Your task to perform on an android device: uninstall "Viber Messenger" Image 0: 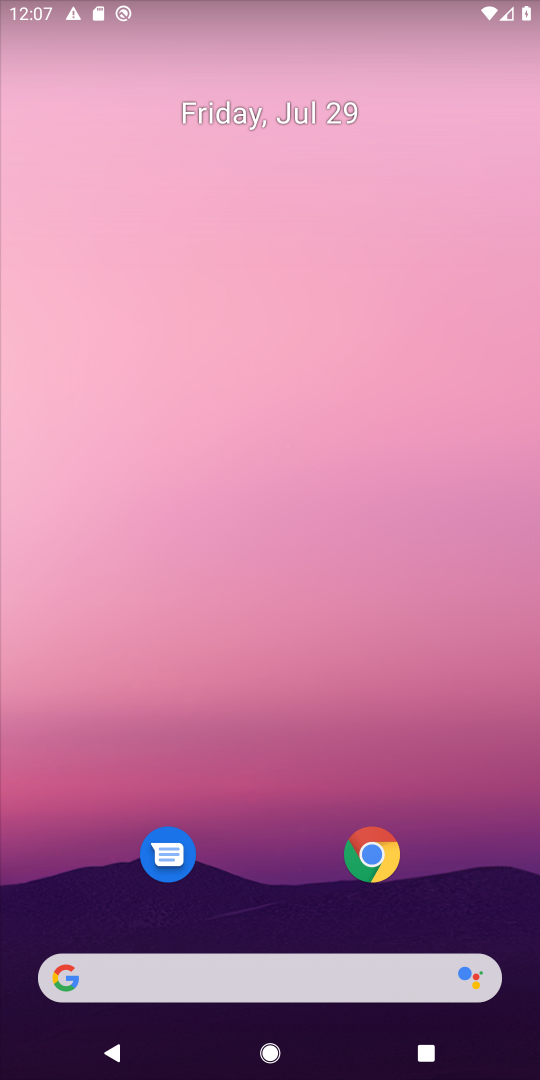
Step 0: drag from (299, 841) to (227, 86)
Your task to perform on an android device: uninstall "Viber Messenger" Image 1: 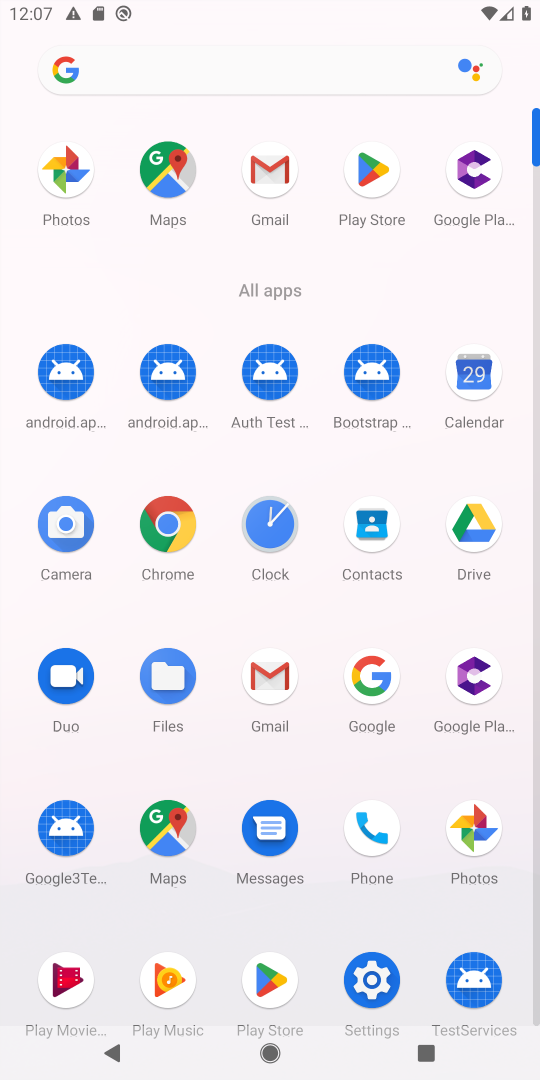
Step 1: click (368, 158)
Your task to perform on an android device: uninstall "Viber Messenger" Image 2: 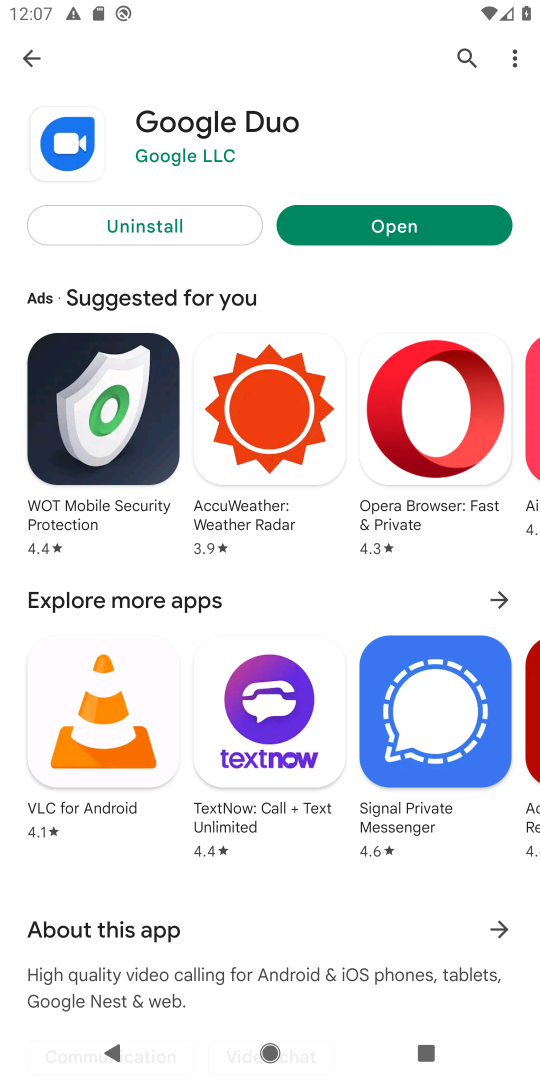
Step 2: click (470, 49)
Your task to perform on an android device: uninstall "Viber Messenger" Image 3: 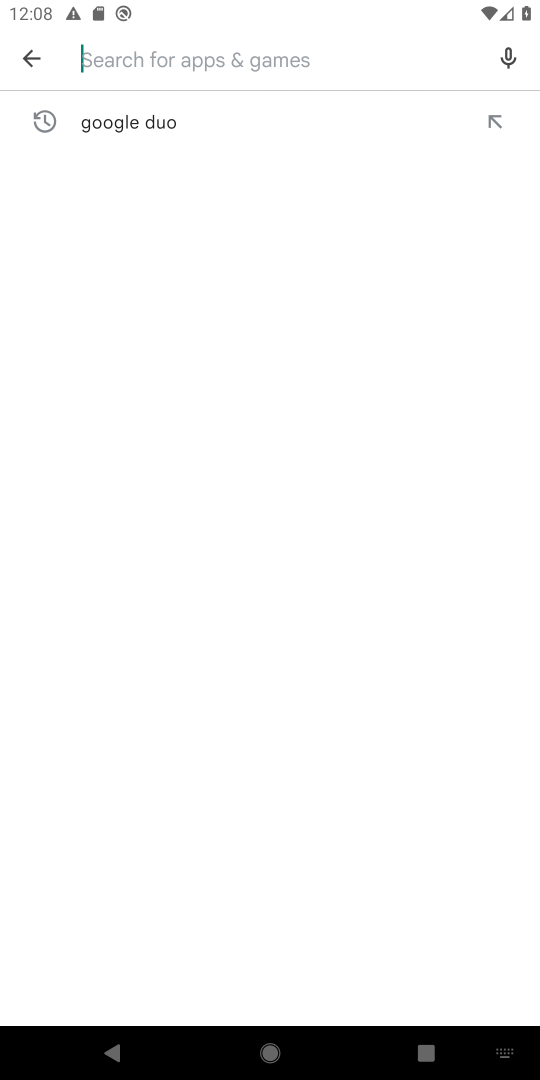
Step 3: type "viber messenger"
Your task to perform on an android device: uninstall "Viber Messenger" Image 4: 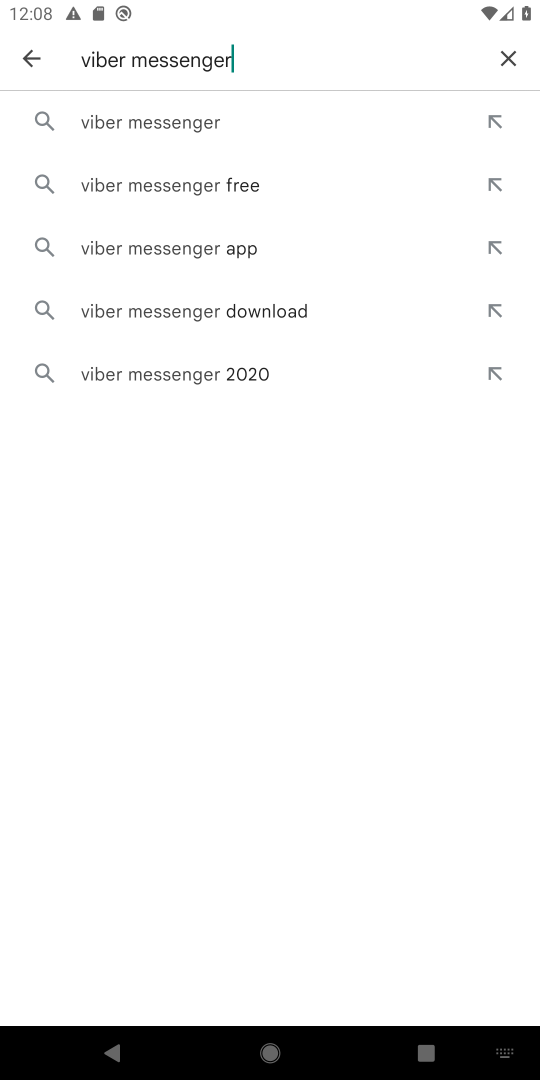
Step 4: click (160, 124)
Your task to perform on an android device: uninstall "Viber Messenger" Image 5: 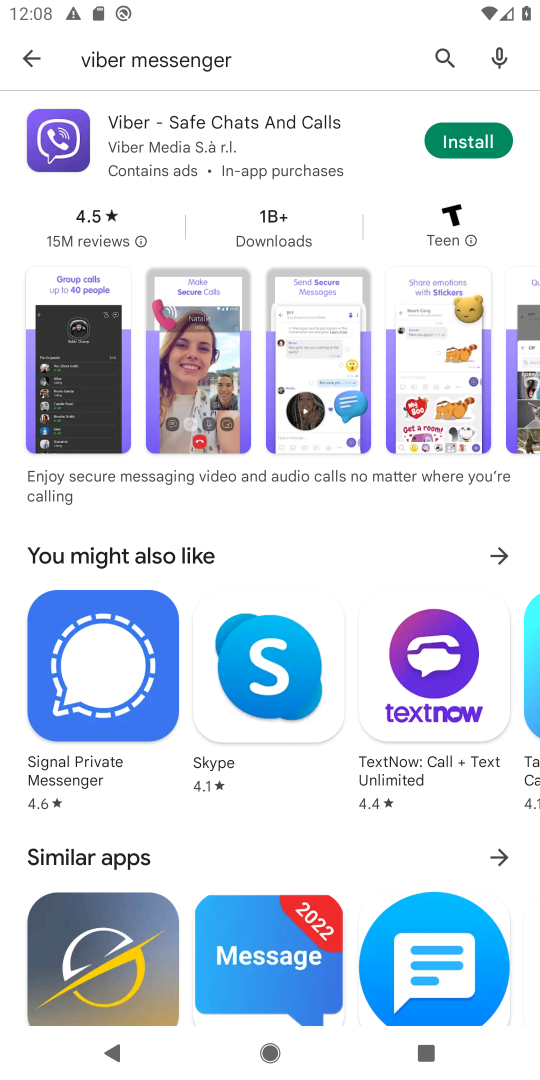
Step 5: click (166, 116)
Your task to perform on an android device: uninstall "Viber Messenger" Image 6: 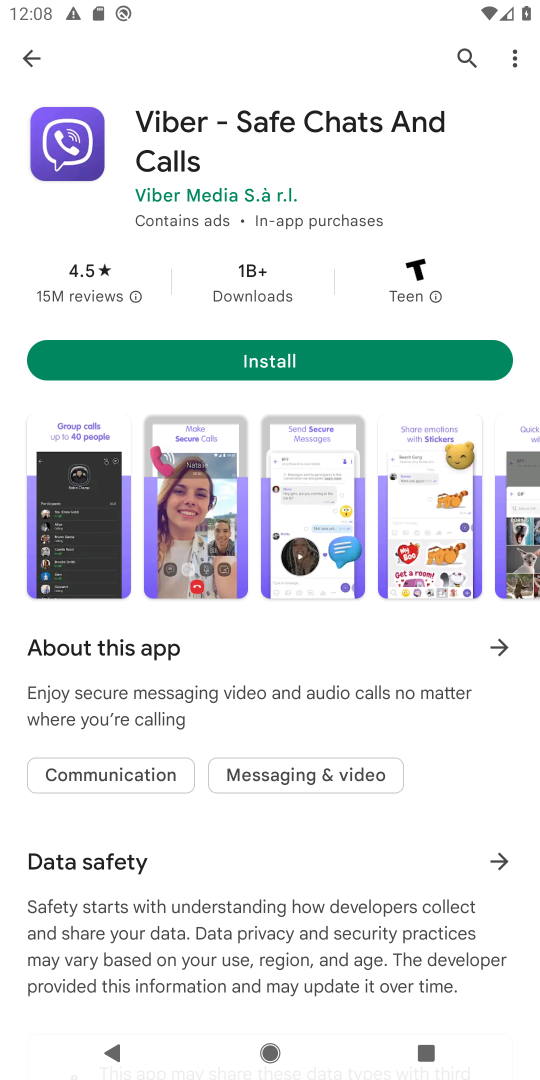
Step 6: task complete